Your task to perform on an android device: Open eBay Image 0: 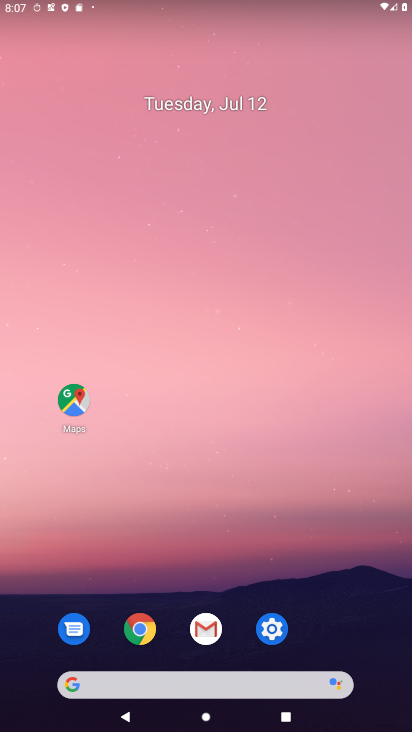
Step 0: click (143, 630)
Your task to perform on an android device: Open eBay Image 1: 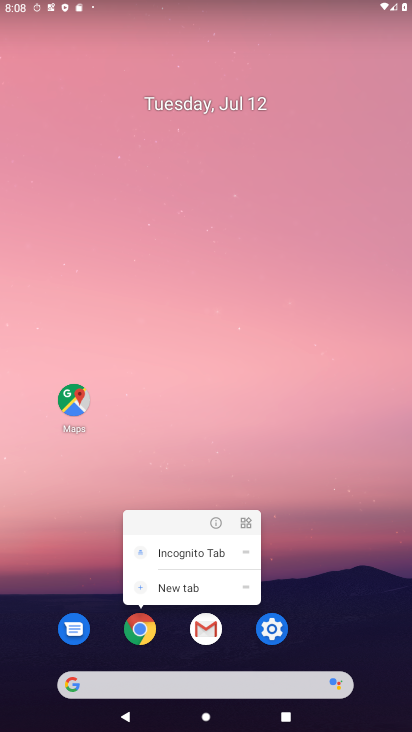
Step 1: click (140, 630)
Your task to perform on an android device: Open eBay Image 2: 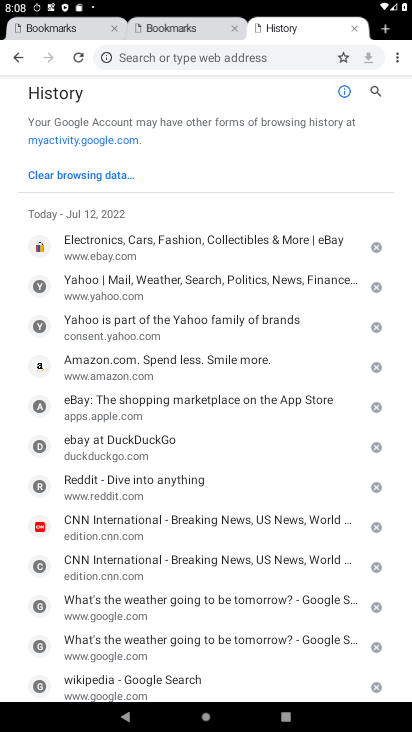
Step 2: click (397, 62)
Your task to perform on an android device: Open eBay Image 3: 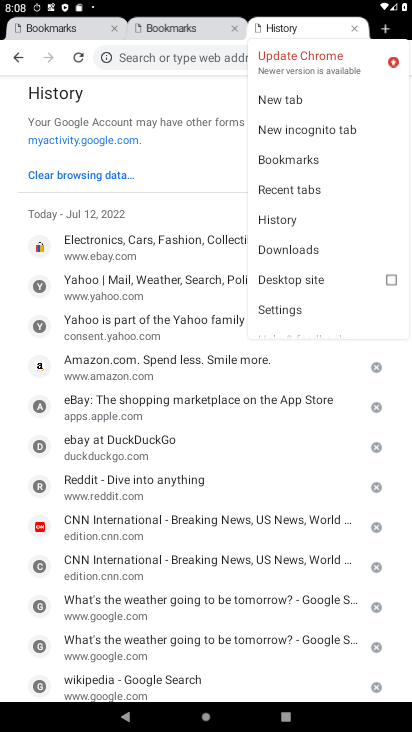
Step 3: click (284, 101)
Your task to perform on an android device: Open eBay Image 4: 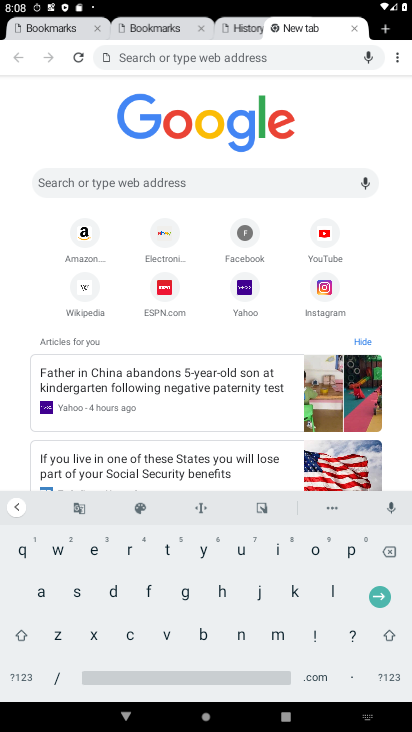
Step 4: click (166, 244)
Your task to perform on an android device: Open eBay Image 5: 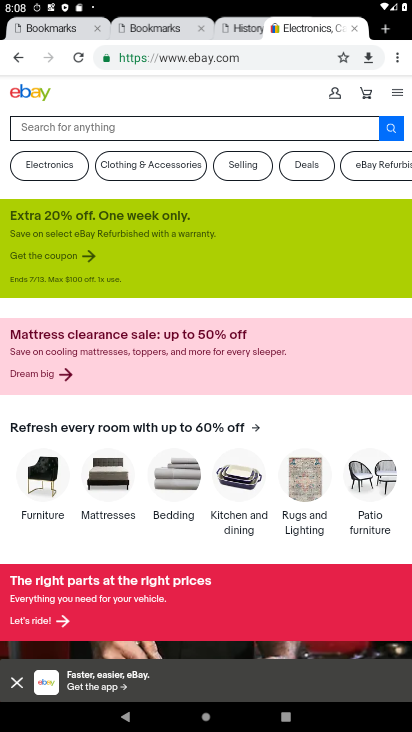
Step 5: task complete